Your task to perform on an android device: Go to Android settings Image 0: 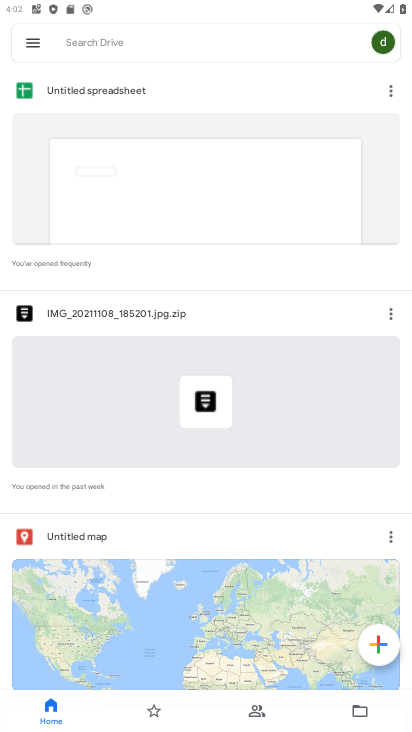
Step 0: press home button
Your task to perform on an android device: Go to Android settings Image 1: 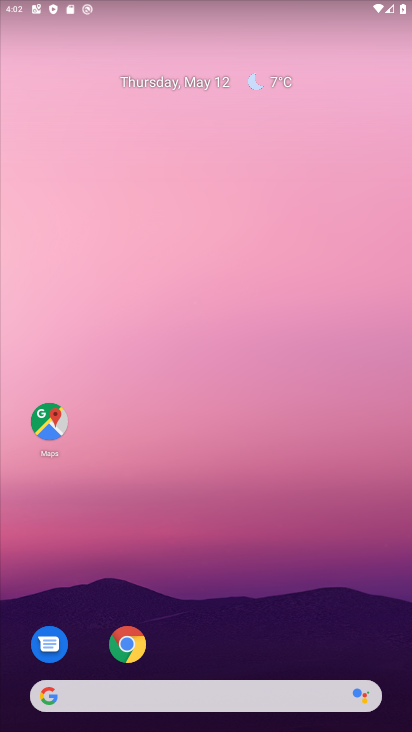
Step 1: drag from (204, 657) to (223, 151)
Your task to perform on an android device: Go to Android settings Image 2: 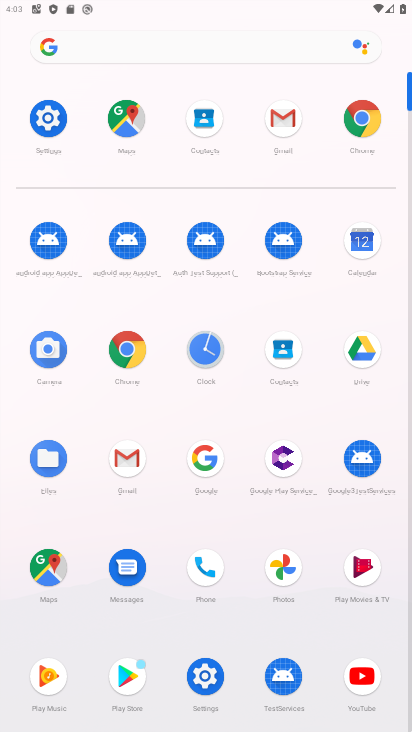
Step 2: click (45, 114)
Your task to perform on an android device: Go to Android settings Image 3: 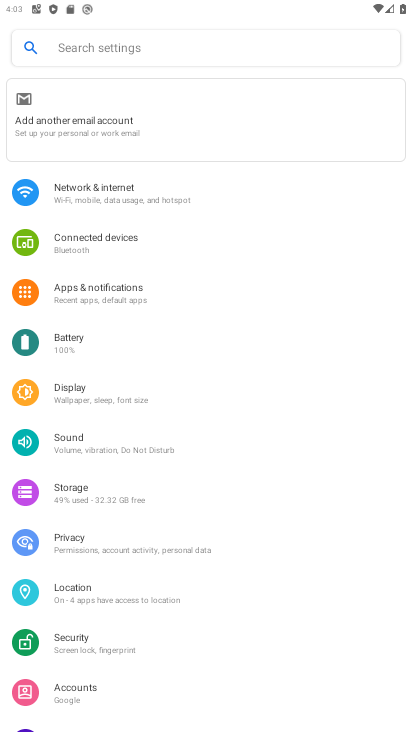
Step 3: drag from (113, 654) to (105, 155)
Your task to perform on an android device: Go to Android settings Image 4: 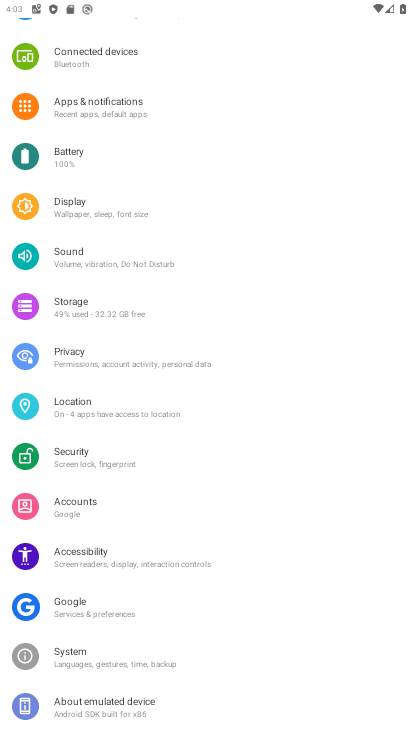
Step 4: click (154, 710)
Your task to perform on an android device: Go to Android settings Image 5: 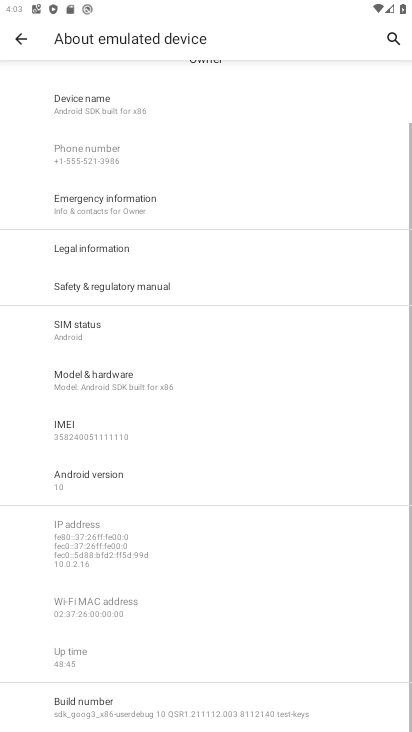
Step 5: click (113, 476)
Your task to perform on an android device: Go to Android settings Image 6: 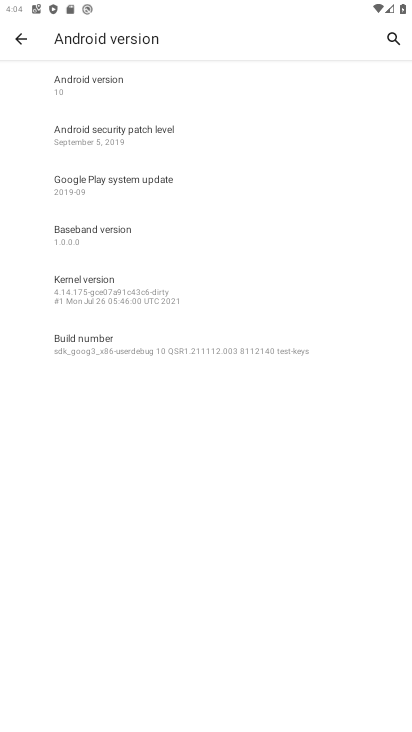
Step 6: task complete